Your task to perform on an android device: Do I have any events this weekend? Image 0: 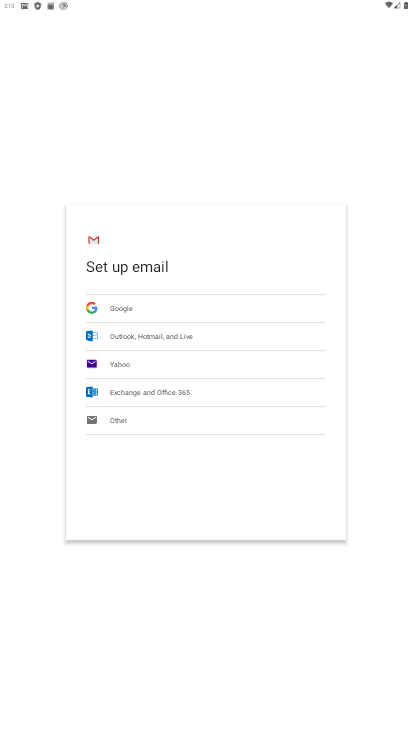
Step 0: press home button
Your task to perform on an android device: Do I have any events this weekend? Image 1: 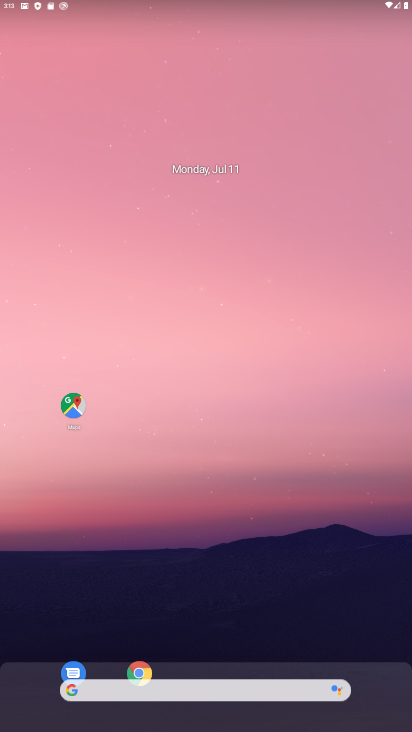
Step 1: drag from (187, 709) to (168, 373)
Your task to perform on an android device: Do I have any events this weekend? Image 2: 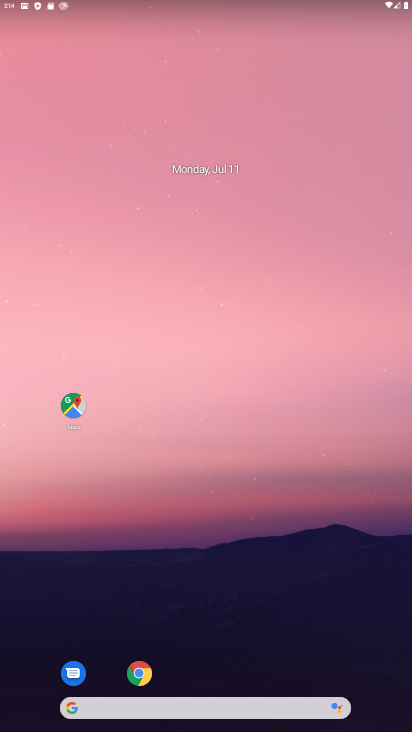
Step 2: drag from (241, 693) to (246, 175)
Your task to perform on an android device: Do I have any events this weekend? Image 3: 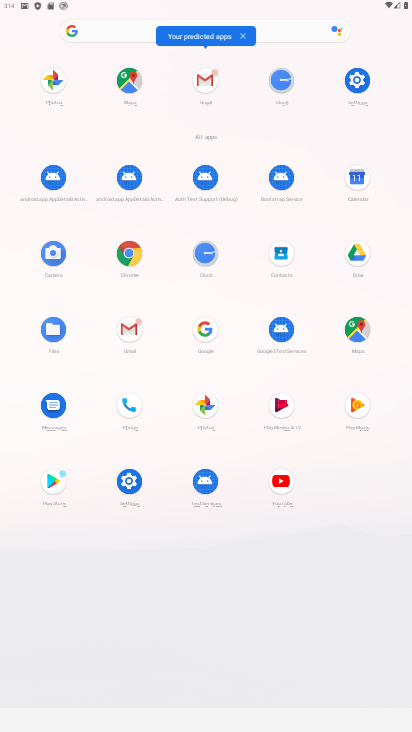
Step 3: click (348, 174)
Your task to perform on an android device: Do I have any events this weekend? Image 4: 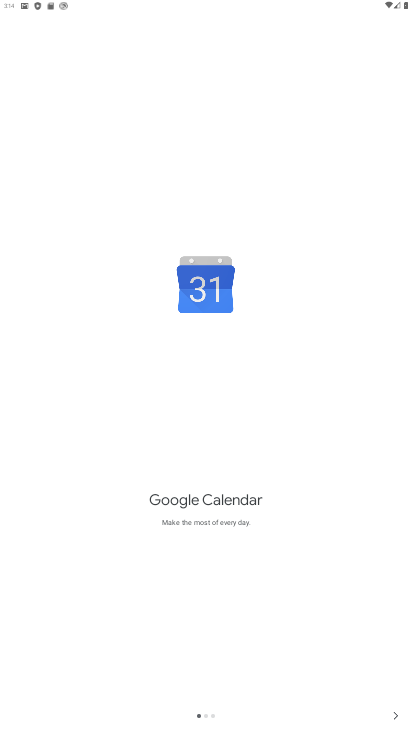
Step 4: click (392, 713)
Your task to perform on an android device: Do I have any events this weekend? Image 5: 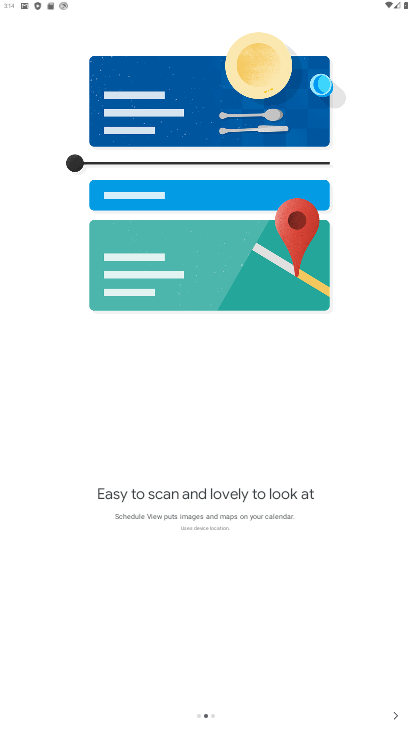
Step 5: click (392, 713)
Your task to perform on an android device: Do I have any events this weekend? Image 6: 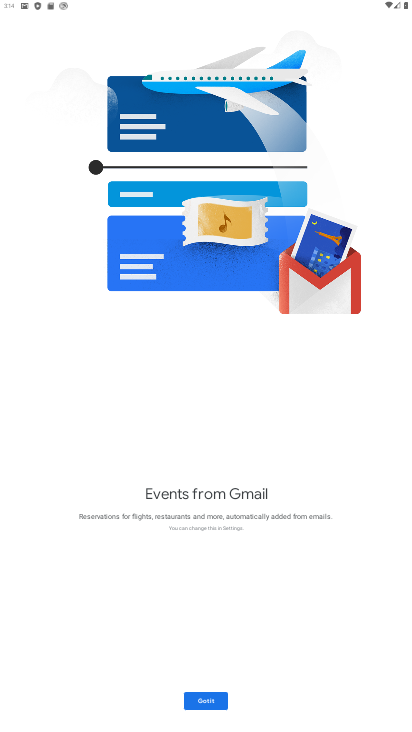
Step 6: click (210, 695)
Your task to perform on an android device: Do I have any events this weekend? Image 7: 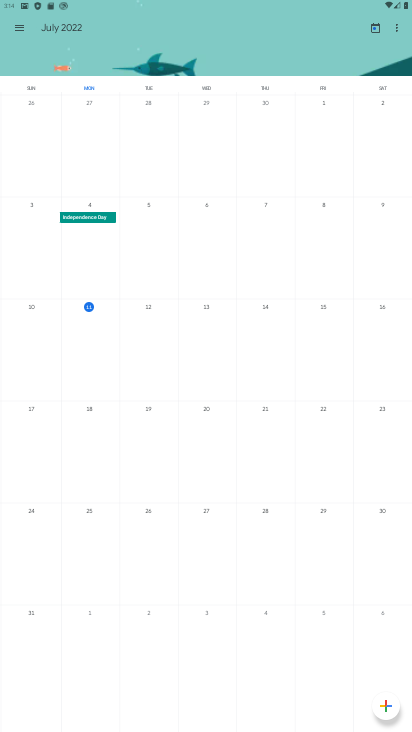
Step 7: click (90, 314)
Your task to perform on an android device: Do I have any events this weekend? Image 8: 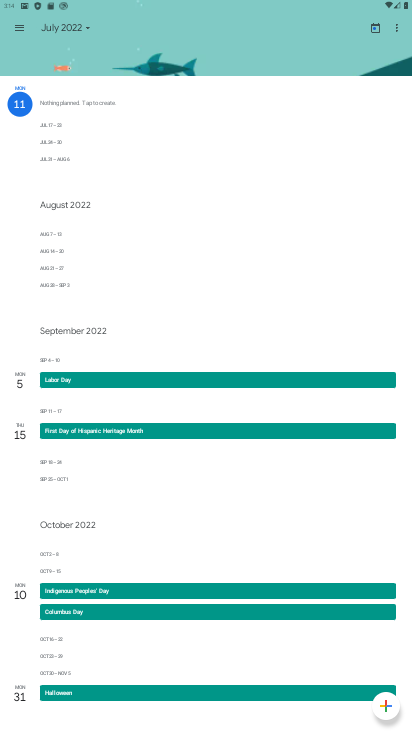
Step 8: task complete